Your task to perform on an android device: Open internet settings Image 0: 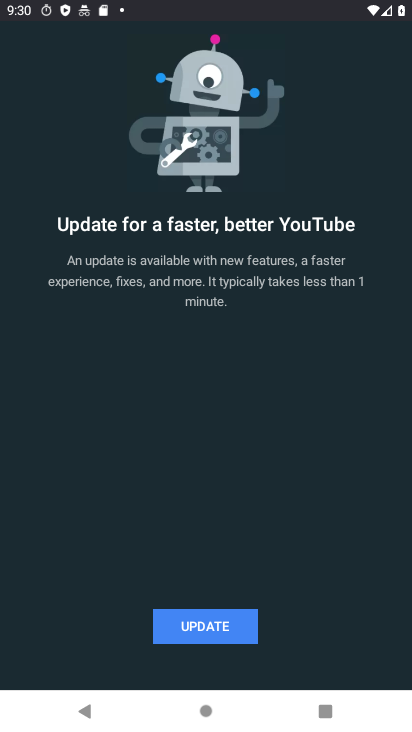
Step 0: press back button
Your task to perform on an android device: Open internet settings Image 1: 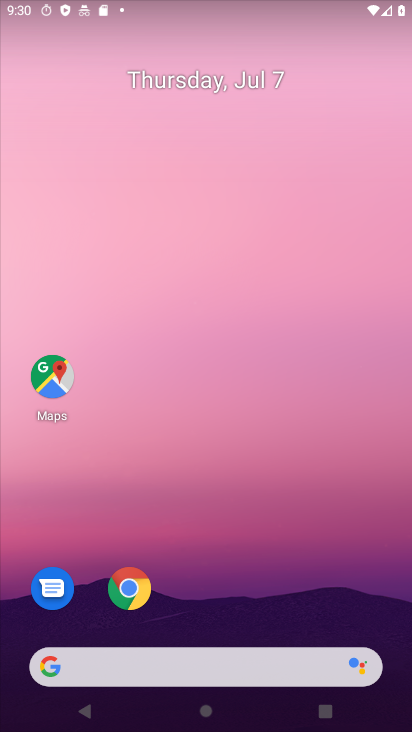
Step 1: drag from (221, 642) to (113, 233)
Your task to perform on an android device: Open internet settings Image 2: 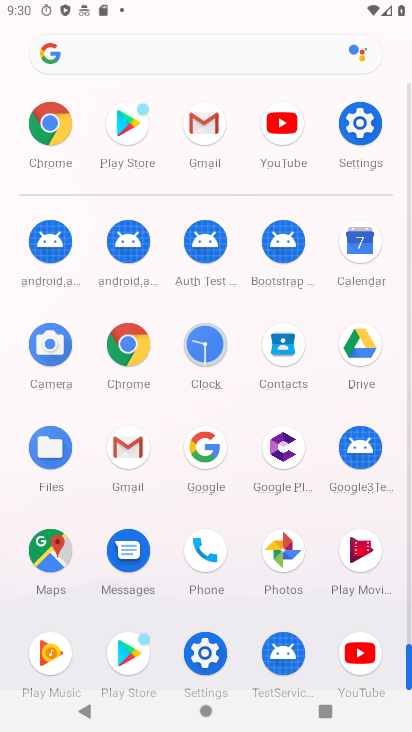
Step 2: click (364, 130)
Your task to perform on an android device: Open internet settings Image 3: 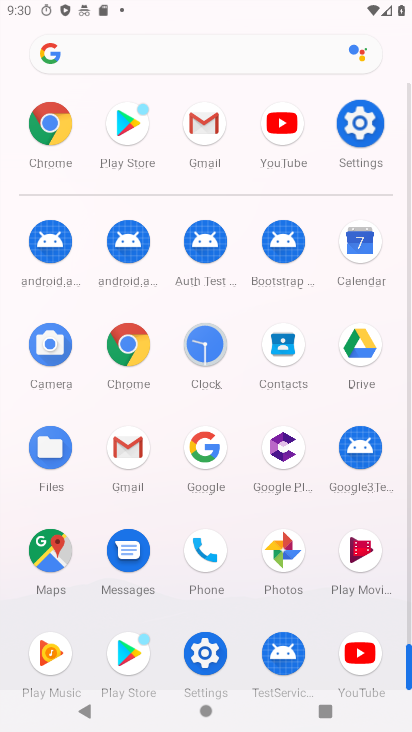
Step 3: click (364, 130)
Your task to perform on an android device: Open internet settings Image 4: 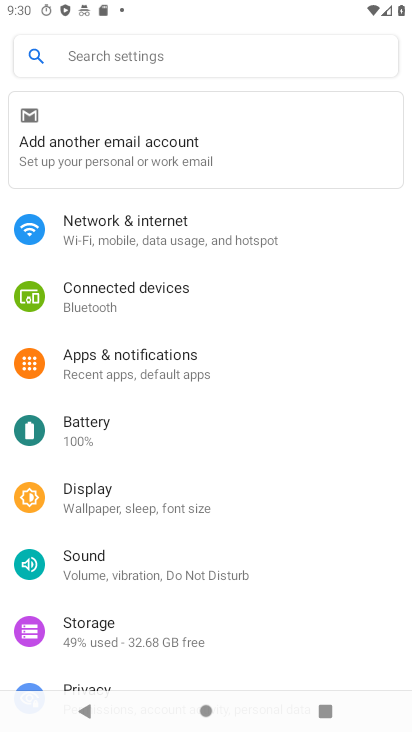
Step 4: click (112, 229)
Your task to perform on an android device: Open internet settings Image 5: 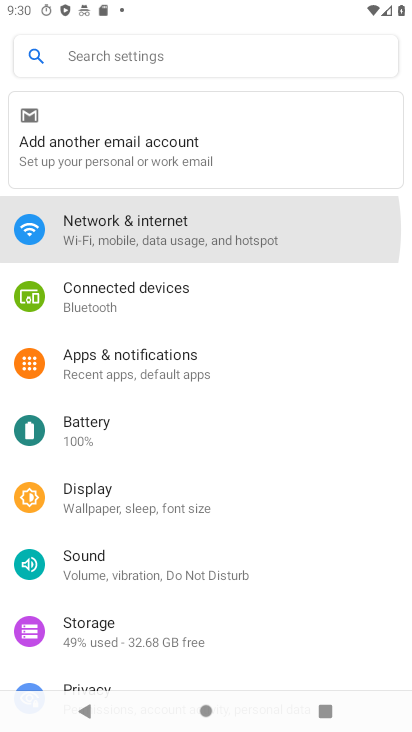
Step 5: click (111, 229)
Your task to perform on an android device: Open internet settings Image 6: 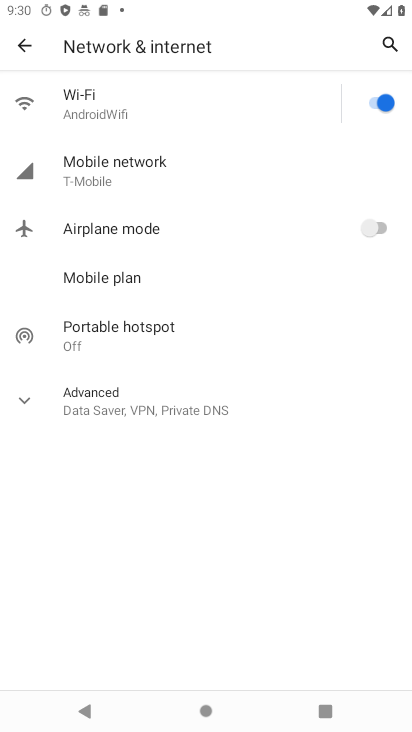
Step 6: click (21, 44)
Your task to perform on an android device: Open internet settings Image 7: 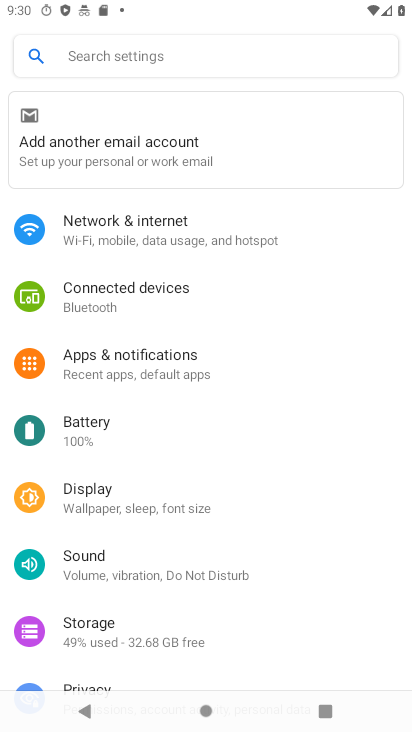
Step 7: click (141, 240)
Your task to perform on an android device: Open internet settings Image 8: 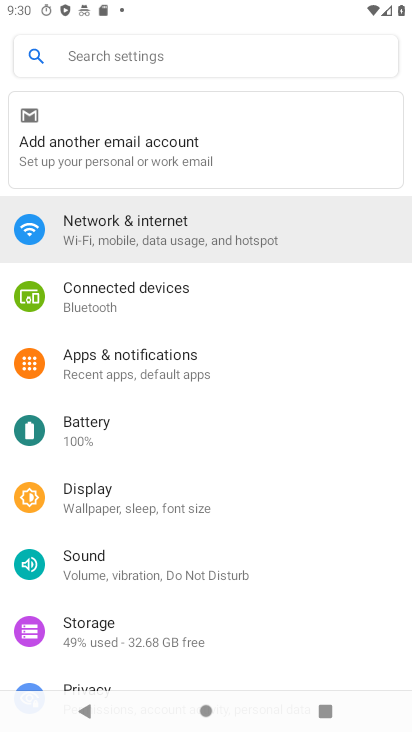
Step 8: click (141, 240)
Your task to perform on an android device: Open internet settings Image 9: 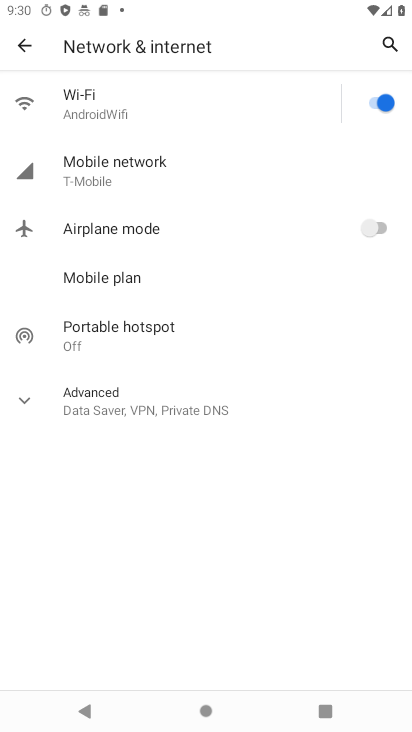
Step 9: task complete